Your task to perform on an android device: turn pop-ups off in chrome Image 0: 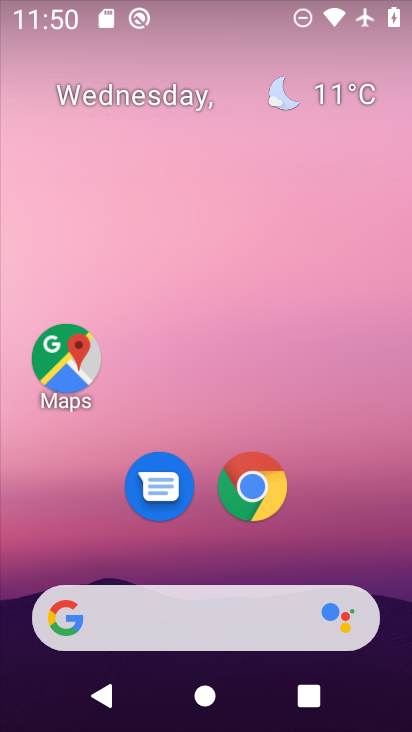
Step 0: drag from (325, 539) to (242, 52)
Your task to perform on an android device: turn pop-ups off in chrome Image 1: 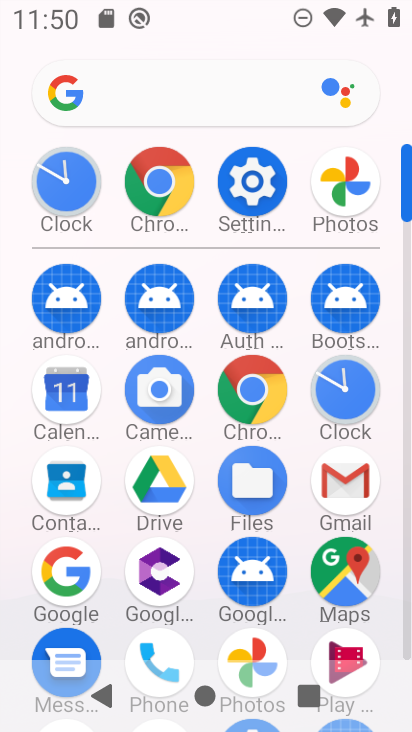
Step 1: drag from (5, 541) to (12, 265)
Your task to perform on an android device: turn pop-ups off in chrome Image 2: 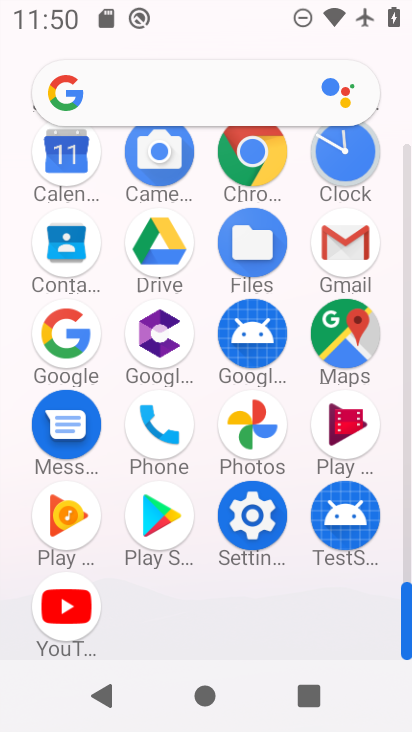
Step 2: click (252, 149)
Your task to perform on an android device: turn pop-ups off in chrome Image 3: 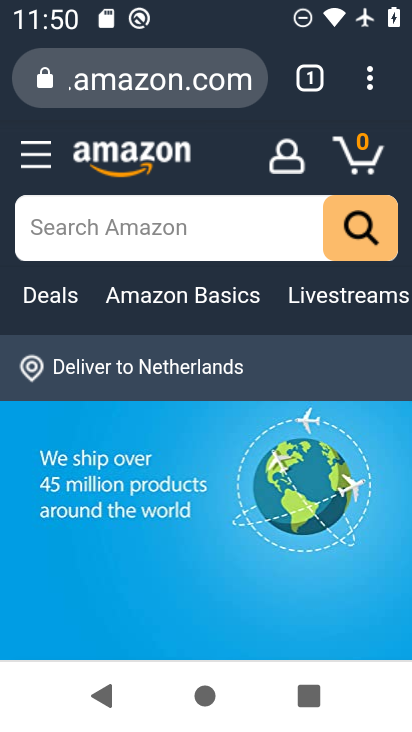
Step 3: drag from (369, 76) to (184, 561)
Your task to perform on an android device: turn pop-ups off in chrome Image 4: 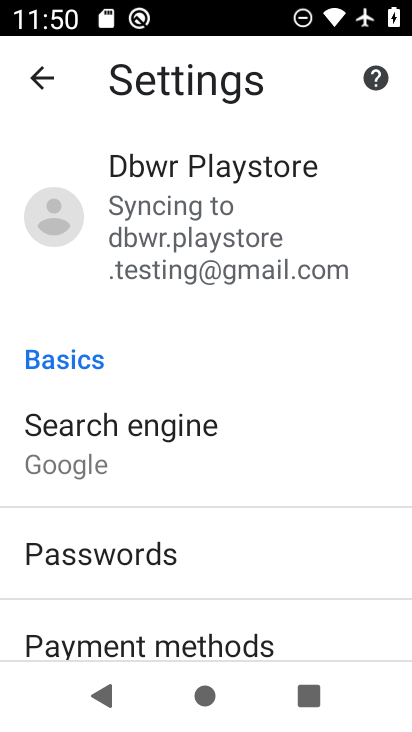
Step 4: drag from (293, 487) to (290, 161)
Your task to perform on an android device: turn pop-ups off in chrome Image 5: 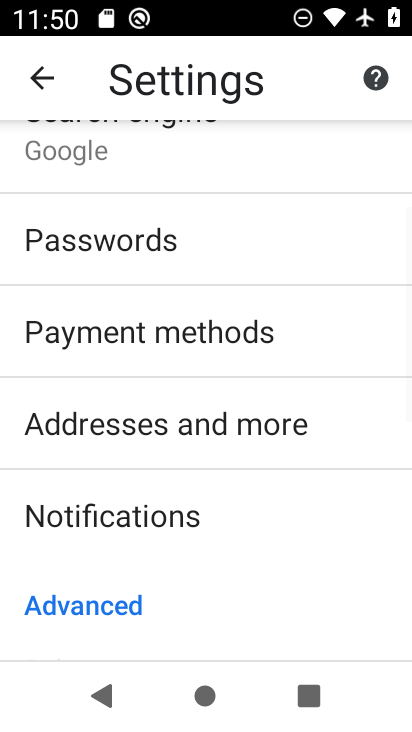
Step 5: drag from (199, 574) to (237, 201)
Your task to perform on an android device: turn pop-ups off in chrome Image 6: 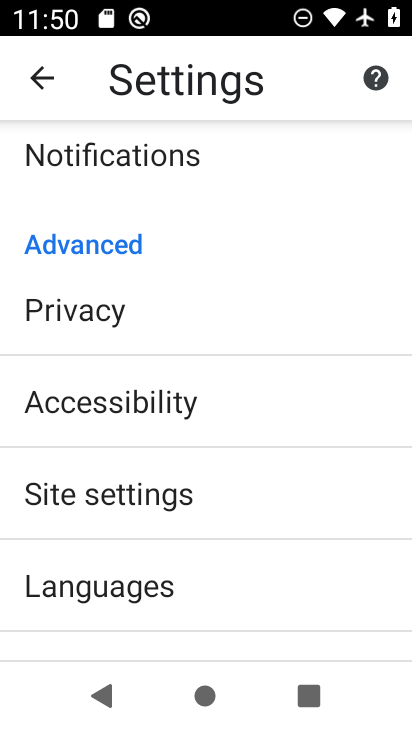
Step 6: drag from (238, 553) to (250, 197)
Your task to perform on an android device: turn pop-ups off in chrome Image 7: 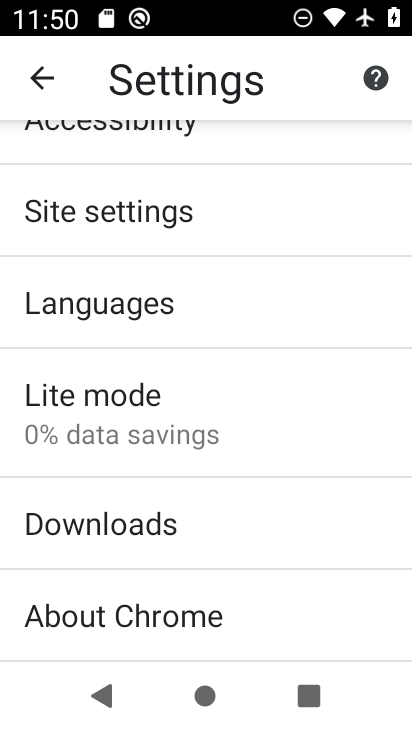
Step 7: click (199, 212)
Your task to perform on an android device: turn pop-ups off in chrome Image 8: 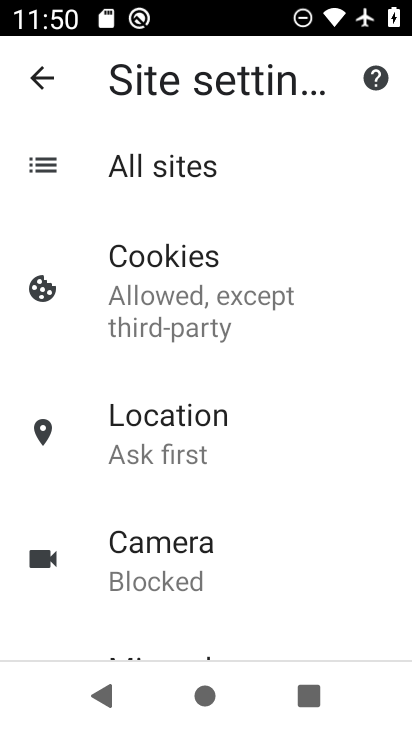
Step 8: drag from (257, 609) to (274, 220)
Your task to perform on an android device: turn pop-ups off in chrome Image 9: 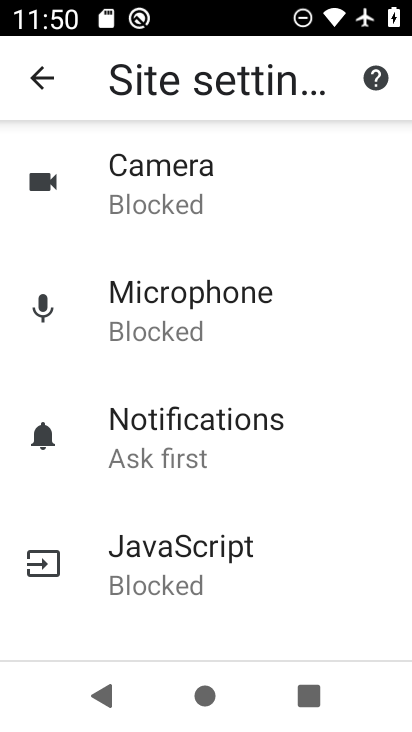
Step 9: drag from (251, 565) to (249, 210)
Your task to perform on an android device: turn pop-ups off in chrome Image 10: 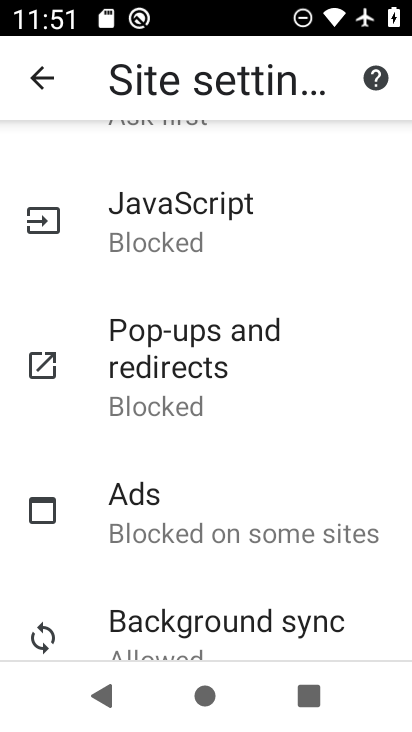
Step 10: click (223, 349)
Your task to perform on an android device: turn pop-ups off in chrome Image 11: 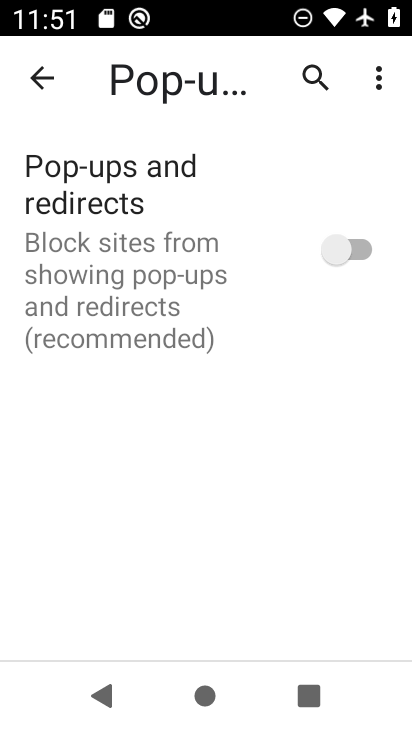
Step 11: task complete